Your task to perform on an android device: Open Google Maps Image 0: 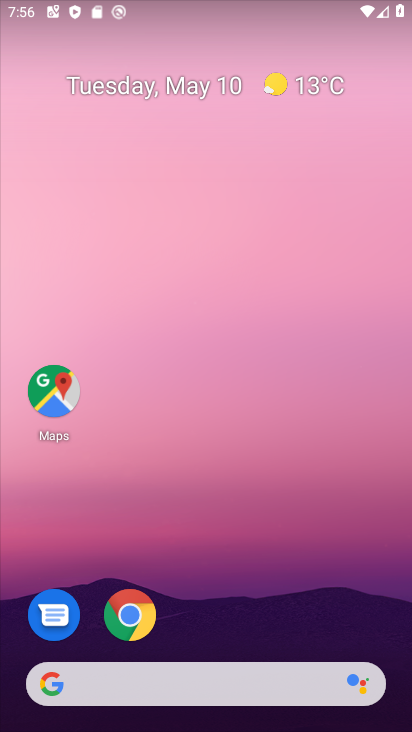
Step 0: click (53, 384)
Your task to perform on an android device: Open Google Maps Image 1: 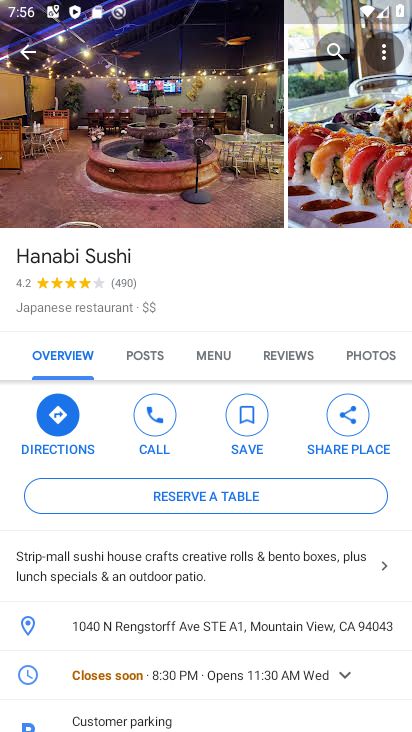
Step 1: task complete